Your task to perform on an android device: Go to Yahoo.com Image 0: 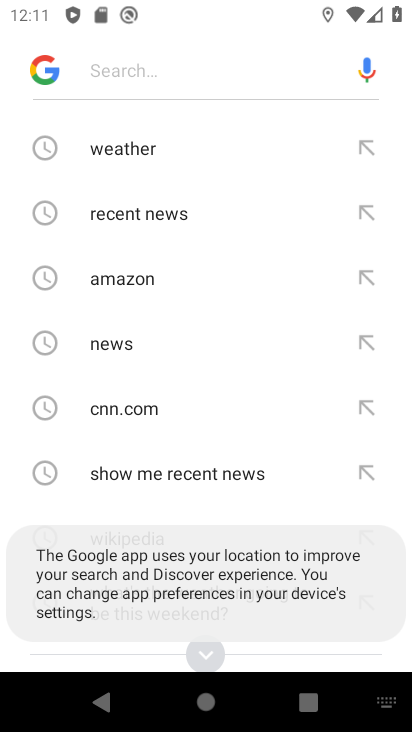
Step 0: press home button
Your task to perform on an android device: Go to Yahoo.com Image 1: 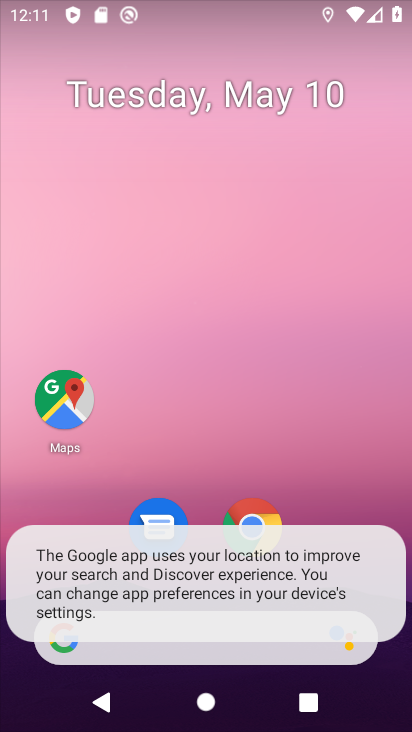
Step 1: drag from (367, 502) to (349, 138)
Your task to perform on an android device: Go to Yahoo.com Image 2: 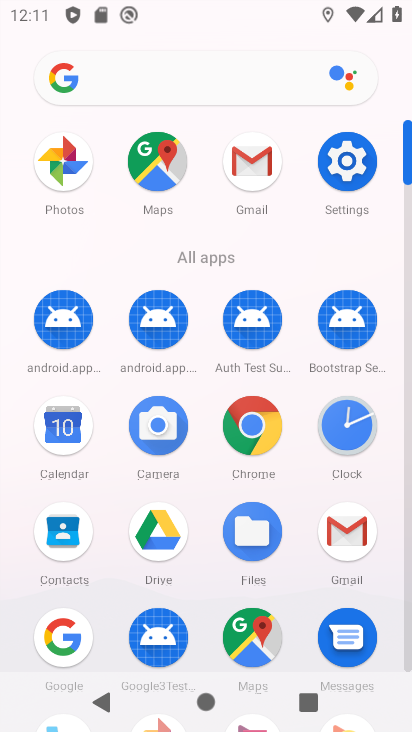
Step 2: click (260, 421)
Your task to perform on an android device: Go to Yahoo.com Image 3: 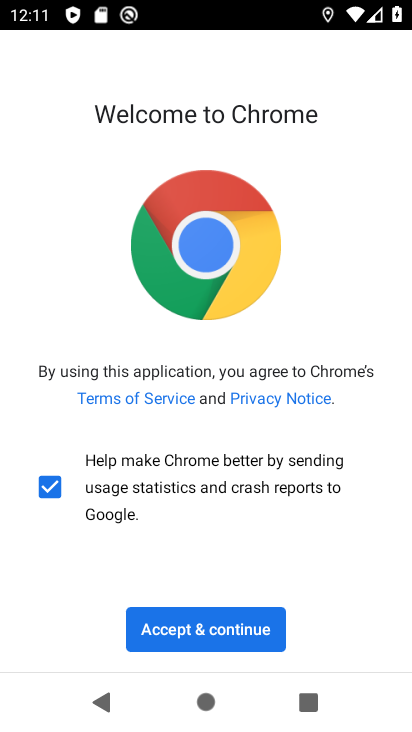
Step 3: click (251, 623)
Your task to perform on an android device: Go to Yahoo.com Image 4: 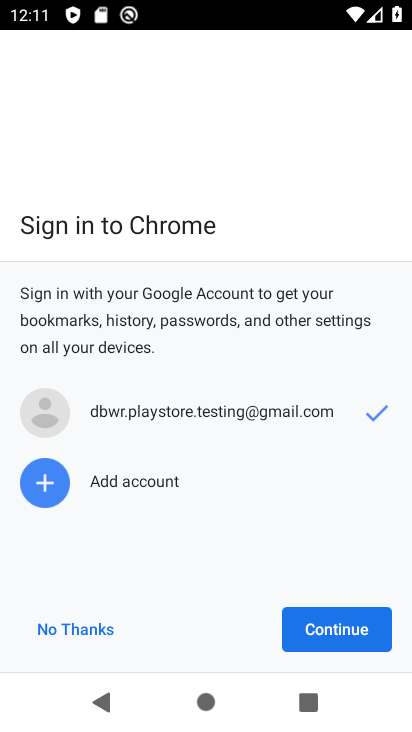
Step 4: click (314, 623)
Your task to perform on an android device: Go to Yahoo.com Image 5: 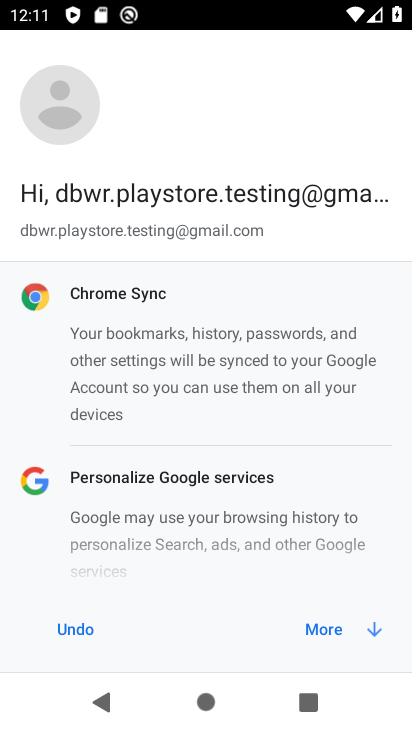
Step 5: click (325, 635)
Your task to perform on an android device: Go to Yahoo.com Image 6: 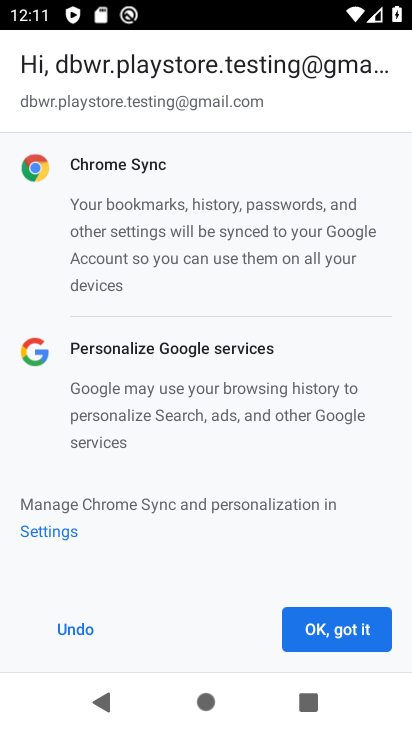
Step 6: click (326, 636)
Your task to perform on an android device: Go to Yahoo.com Image 7: 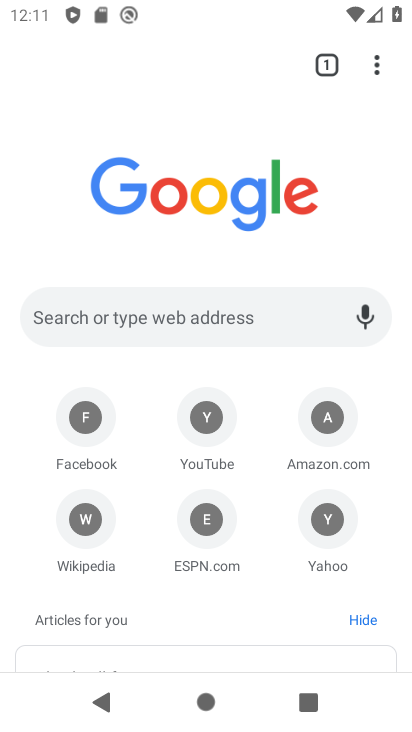
Step 7: click (177, 333)
Your task to perform on an android device: Go to Yahoo.com Image 8: 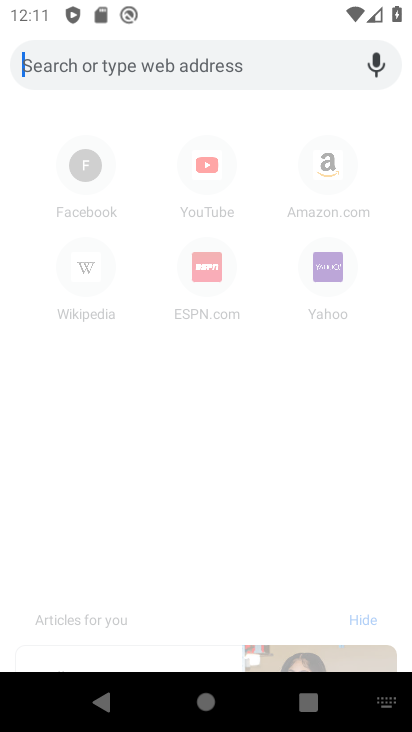
Step 8: click (315, 282)
Your task to perform on an android device: Go to Yahoo.com Image 9: 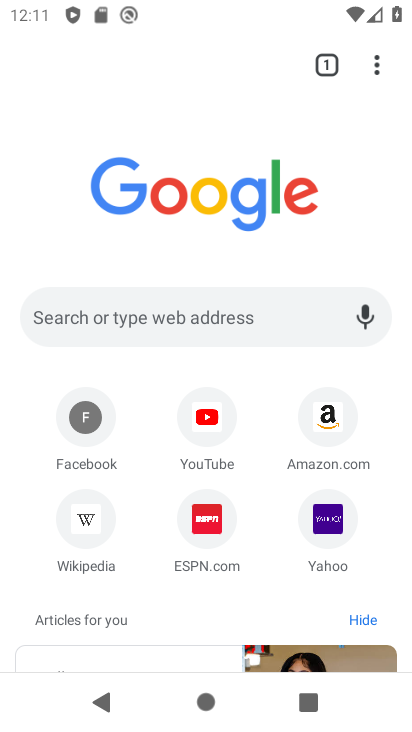
Step 9: click (332, 539)
Your task to perform on an android device: Go to Yahoo.com Image 10: 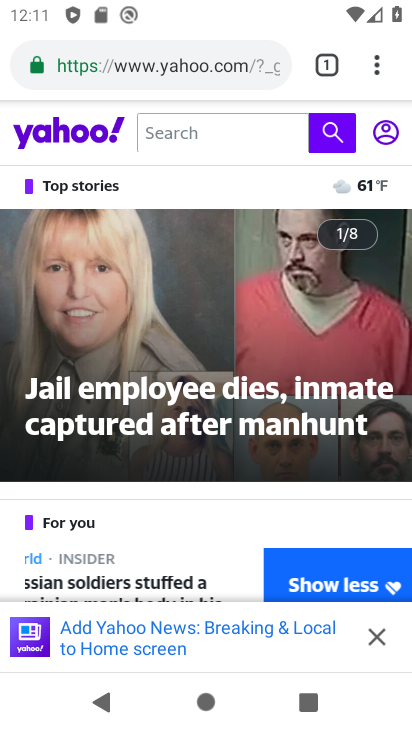
Step 10: task complete